Your task to perform on an android device: Do I have any events today? Image 0: 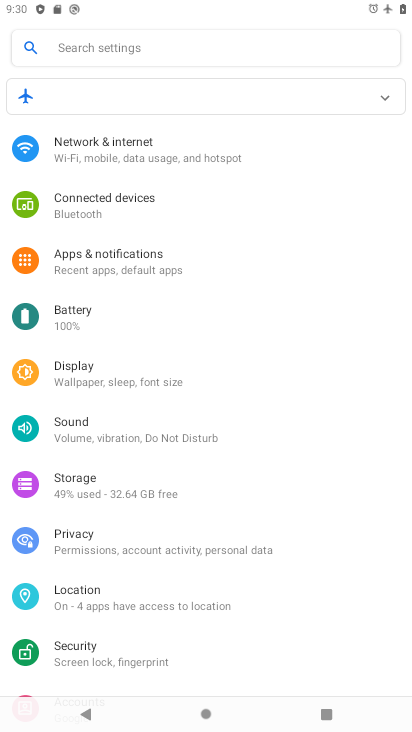
Step 0: press home button
Your task to perform on an android device: Do I have any events today? Image 1: 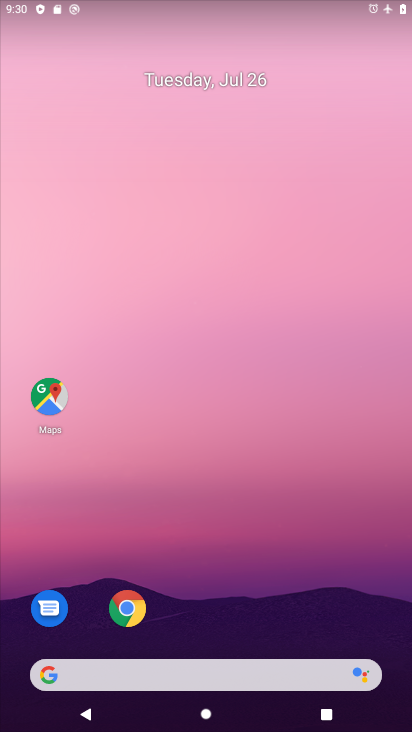
Step 1: drag from (232, 728) to (226, 183)
Your task to perform on an android device: Do I have any events today? Image 2: 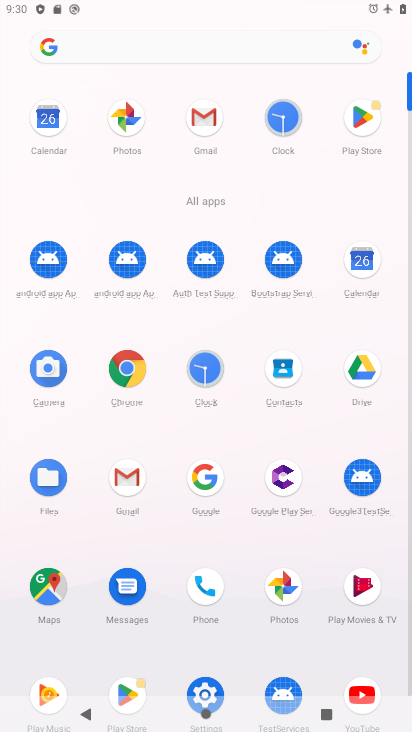
Step 2: click (360, 255)
Your task to perform on an android device: Do I have any events today? Image 3: 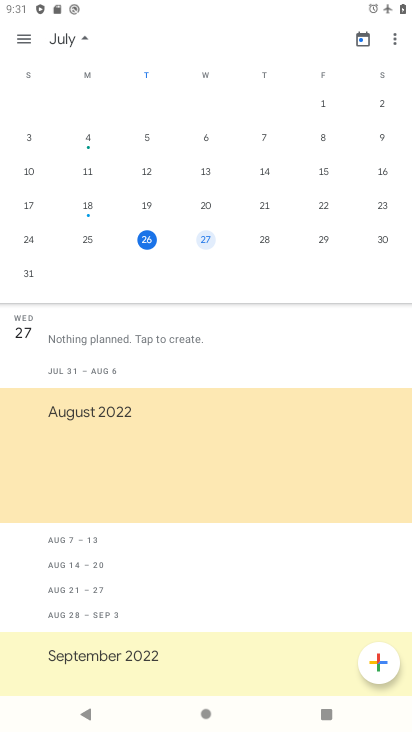
Step 3: click (24, 33)
Your task to perform on an android device: Do I have any events today? Image 4: 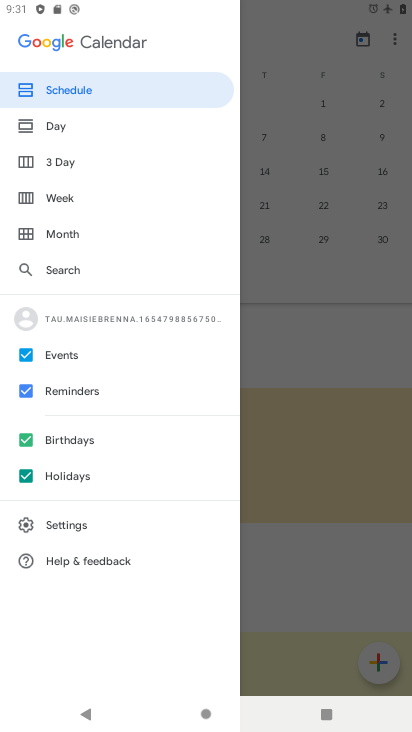
Step 4: click (26, 471)
Your task to perform on an android device: Do I have any events today? Image 5: 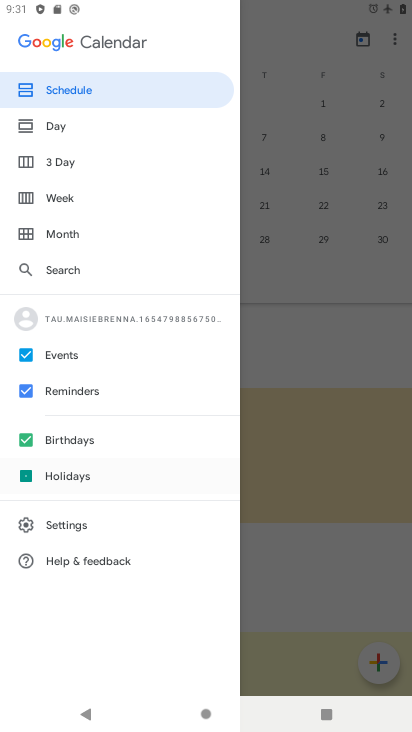
Step 5: click (23, 439)
Your task to perform on an android device: Do I have any events today? Image 6: 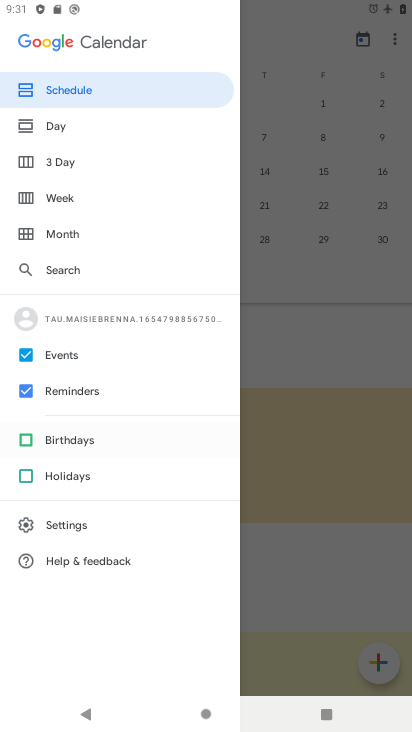
Step 6: click (24, 388)
Your task to perform on an android device: Do I have any events today? Image 7: 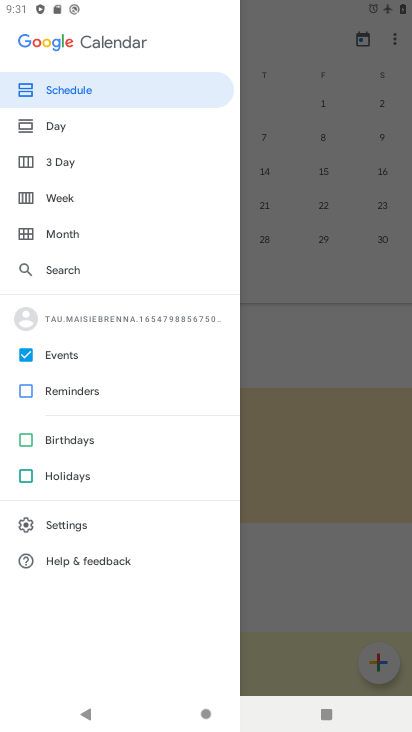
Step 7: click (259, 169)
Your task to perform on an android device: Do I have any events today? Image 8: 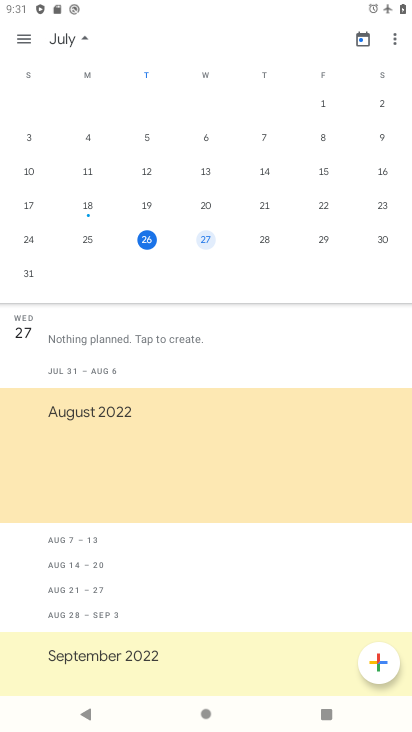
Step 8: click (148, 235)
Your task to perform on an android device: Do I have any events today? Image 9: 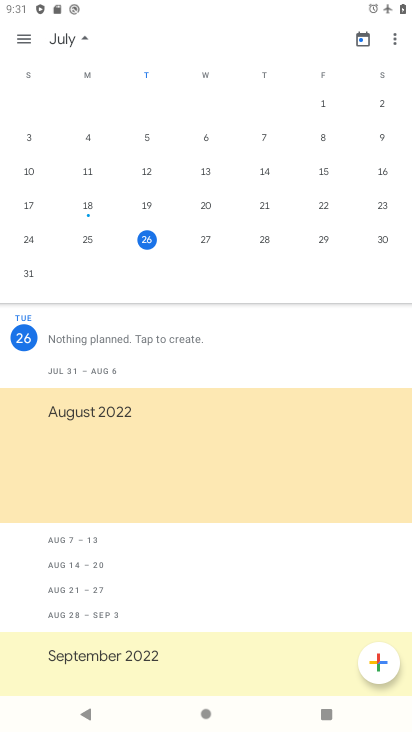
Step 9: task complete